Your task to perform on an android device: Open privacy settings Image 0: 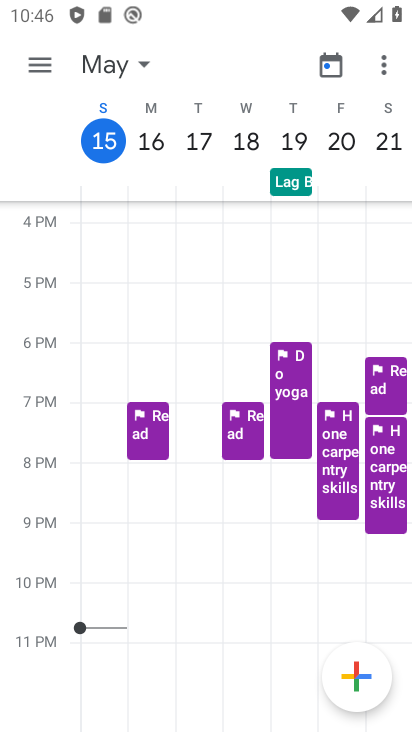
Step 0: press back button
Your task to perform on an android device: Open privacy settings Image 1: 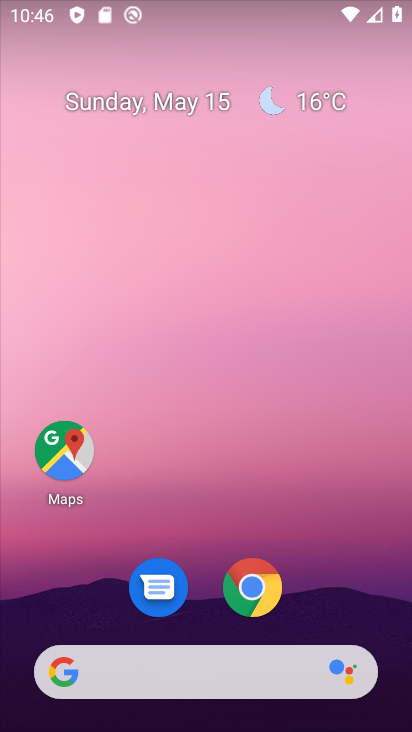
Step 1: drag from (372, 564) to (188, 19)
Your task to perform on an android device: Open privacy settings Image 2: 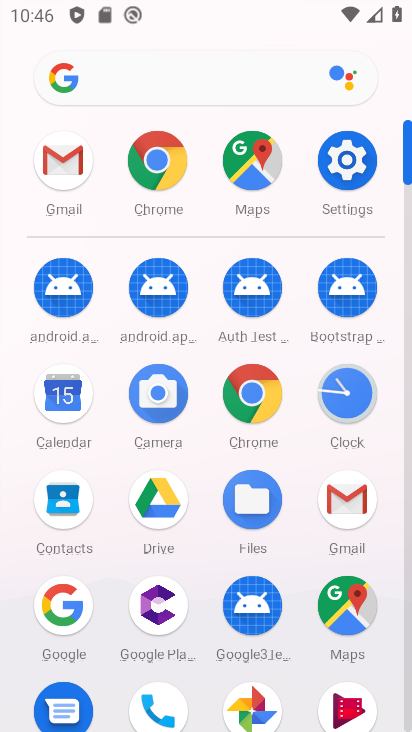
Step 2: click (155, 157)
Your task to perform on an android device: Open privacy settings Image 3: 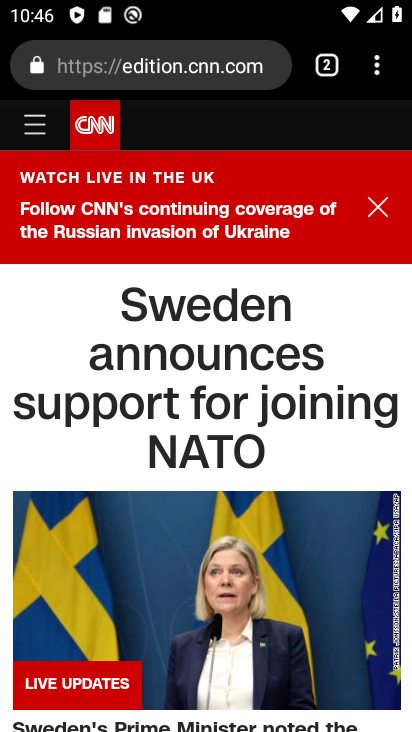
Step 3: drag from (377, 69) to (159, 631)
Your task to perform on an android device: Open privacy settings Image 4: 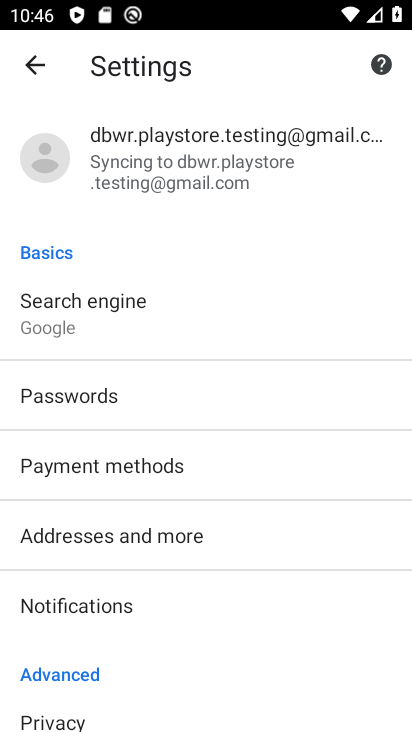
Step 4: click (89, 710)
Your task to perform on an android device: Open privacy settings Image 5: 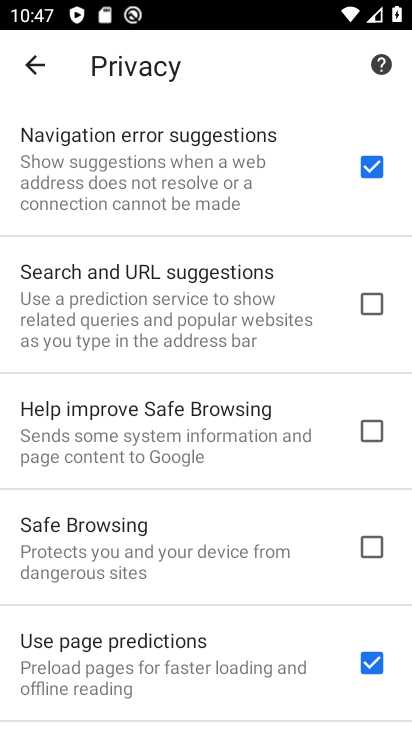
Step 5: task complete